Your task to perform on an android device: Search for sushi restaurants on Maps Image 0: 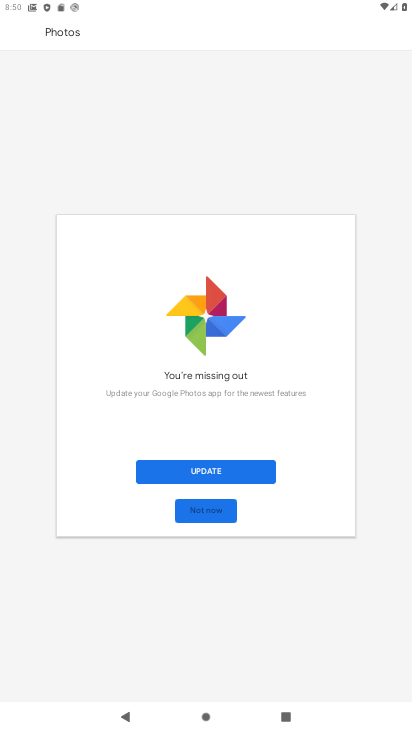
Step 0: press home button
Your task to perform on an android device: Search for sushi restaurants on Maps Image 1: 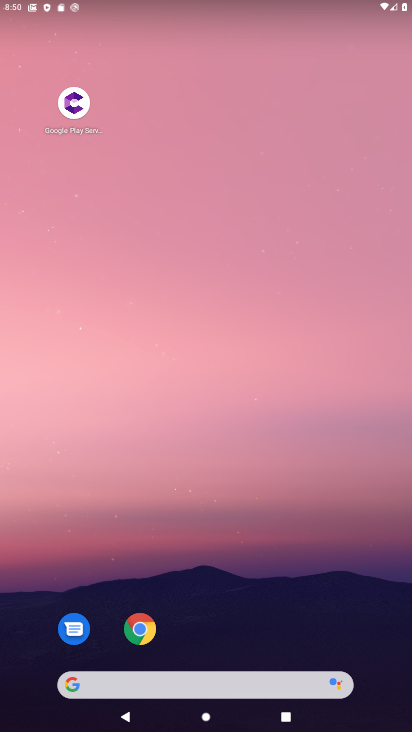
Step 1: drag from (243, 619) to (268, 104)
Your task to perform on an android device: Search for sushi restaurants on Maps Image 2: 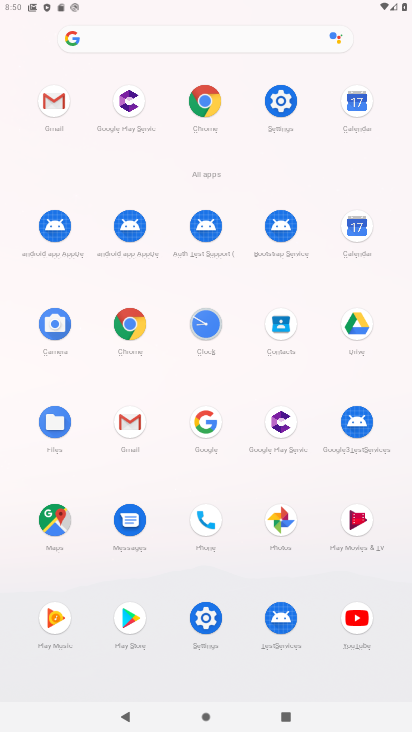
Step 2: click (55, 523)
Your task to perform on an android device: Search for sushi restaurants on Maps Image 3: 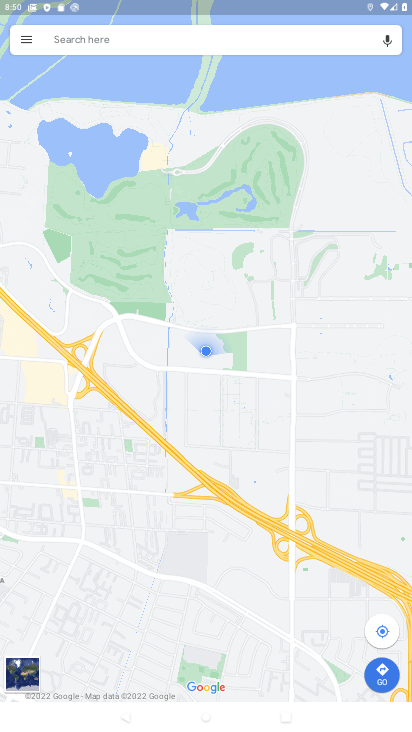
Step 3: click (112, 40)
Your task to perform on an android device: Search for sushi restaurants on Maps Image 4: 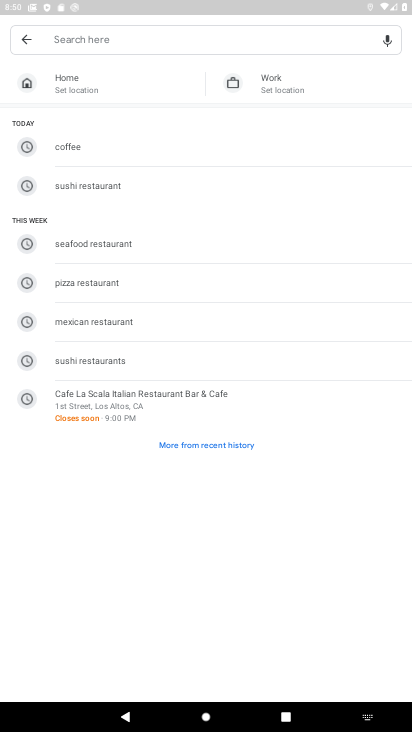
Step 4: type "sushi restaurants"
Your task to perform on an android device: Search for sushi restaurants on Maps Image 5: 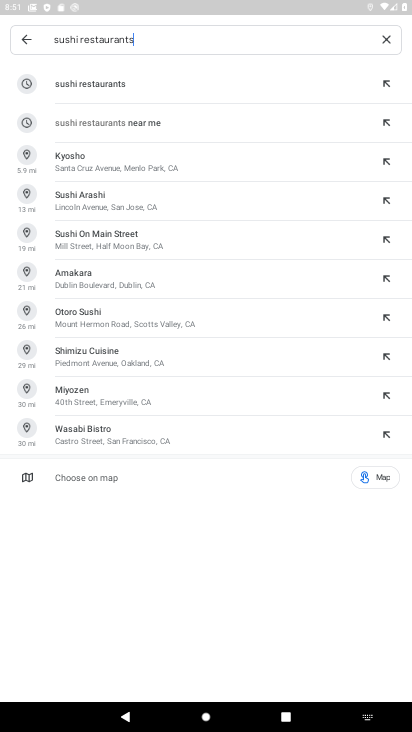
Step 5: click (87, 90)
Your task to perform on an android device: Search for sushi restaurants on Maps Image 6: 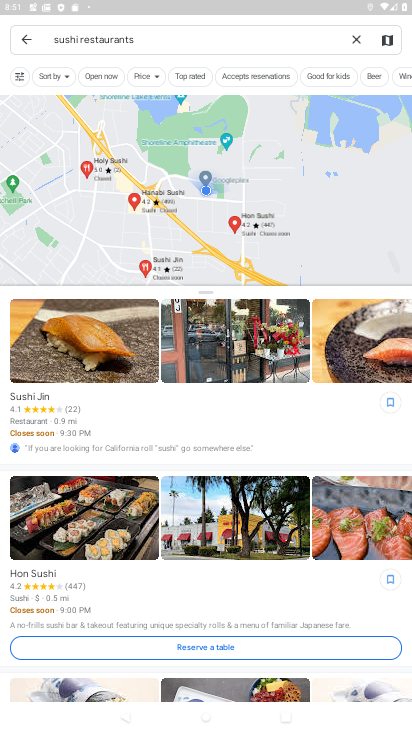
Step 6: task complete